Your task to perform on an android device: Open the phone app and click the voicemail tab. Image 0: 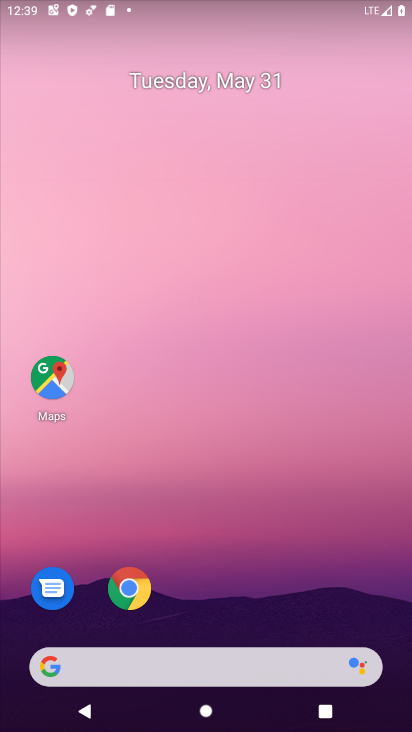
Step 0: drag from (205, 635) to (187, 82)
Your task to perform on an android device: Open the phone app and click the voicemail tab. Image 1: 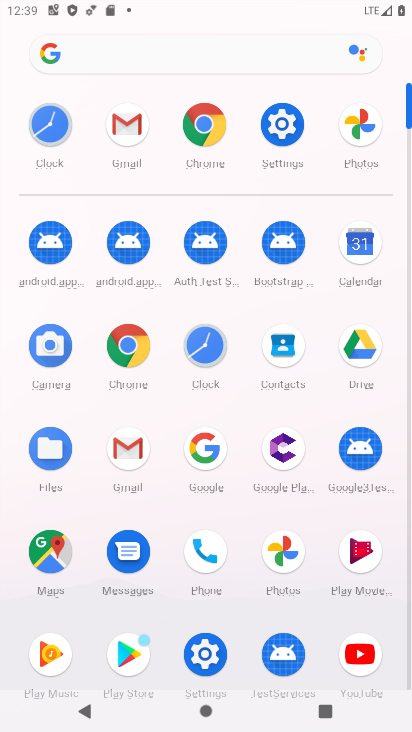
Step 1: click (206, 549)
Your task to perform on an android device: Open the phone app and click the voicemail tab. Image 2: 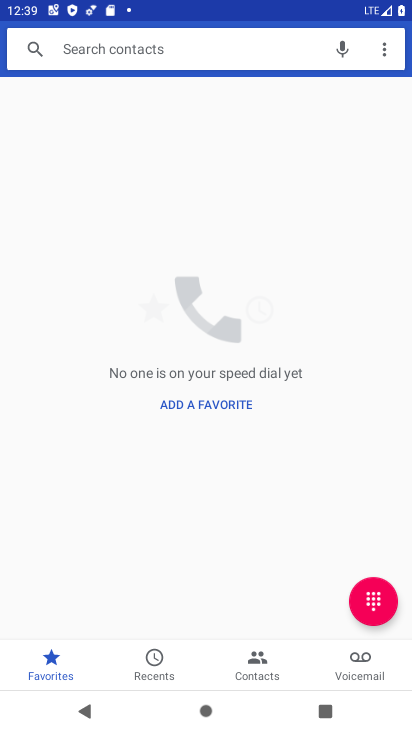
Step 2: click (354, 659)
Your task to perform on an android device: Open the phone app and click the voicemail tab. Image 3: 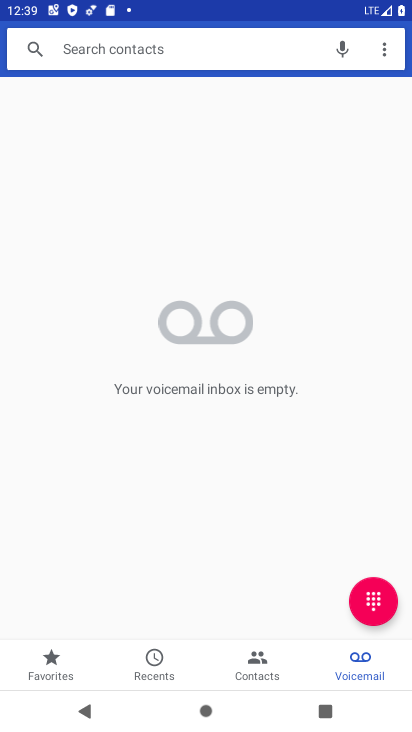
Step 3: task complete